Your task to perform on an android device: Go to Google maps Image 0: 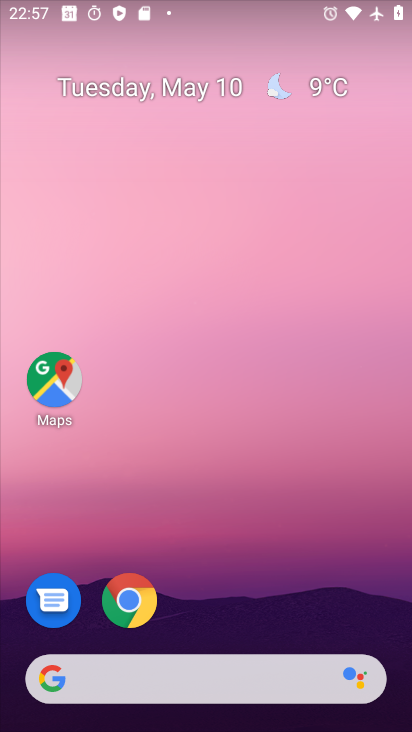
Step 0: drag from (284, 505) to (244, 87)
Your task to perform on an android device: Go to Google maps Image 1: 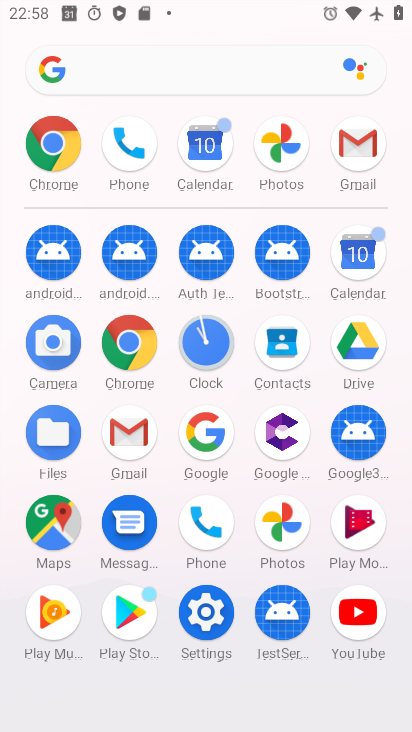
Step 1: click (48, 515)
Your task to perform on an android device: Go to Google maps Image 2: 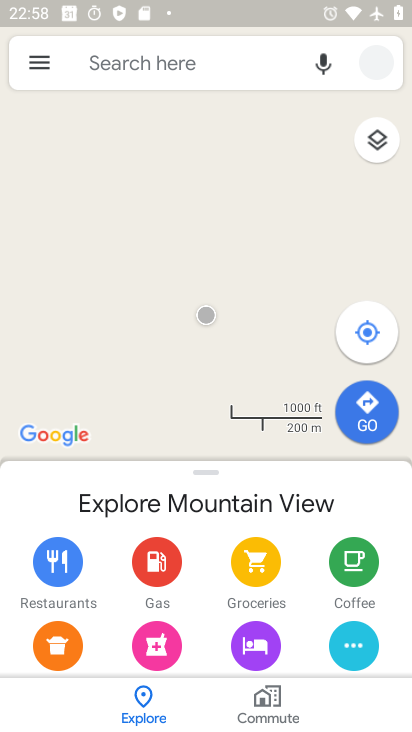
Step 2: task complete